Your task to perform on an android device: search for 2021 honda civic Image 0: 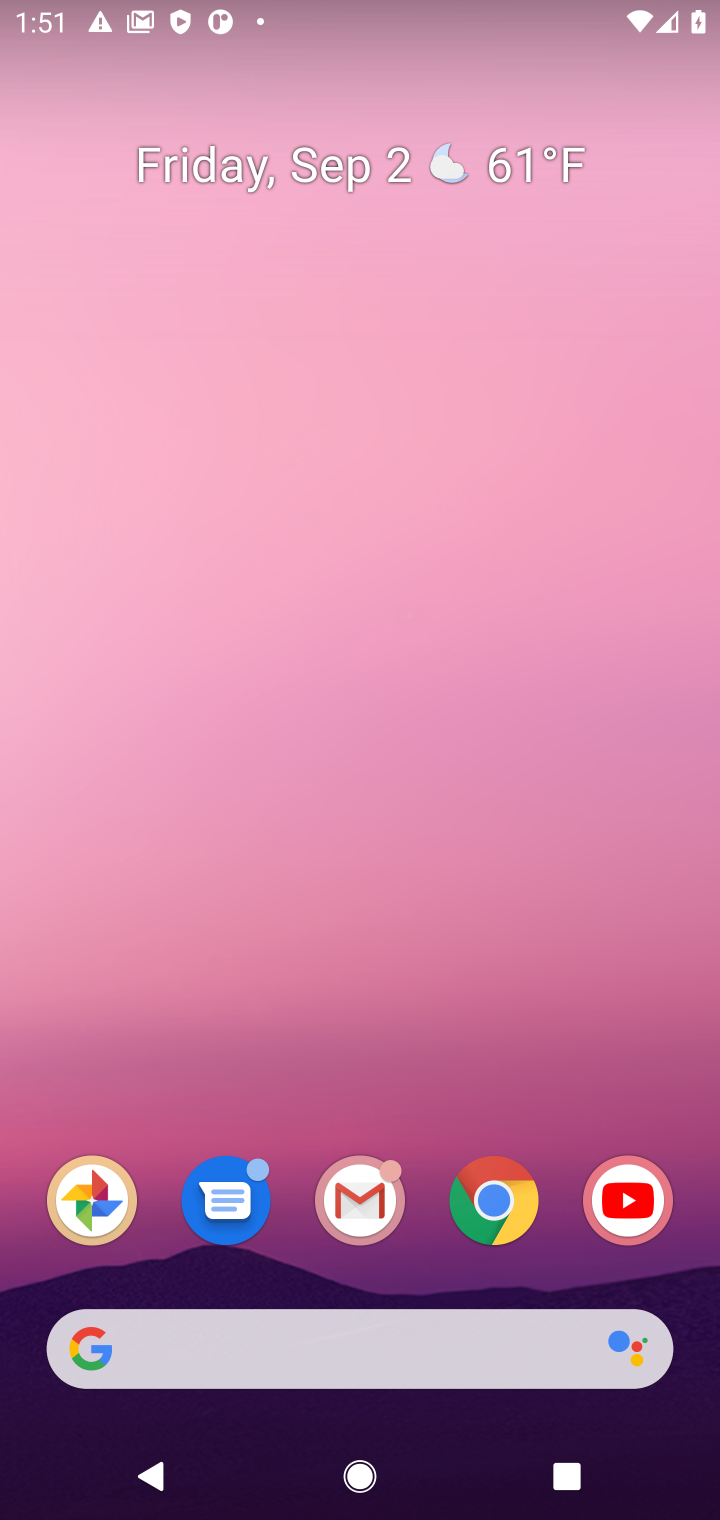
Step 0: click (490, 1203)
Your task to perform on an android device: search for 2021 honda civic Image 1: 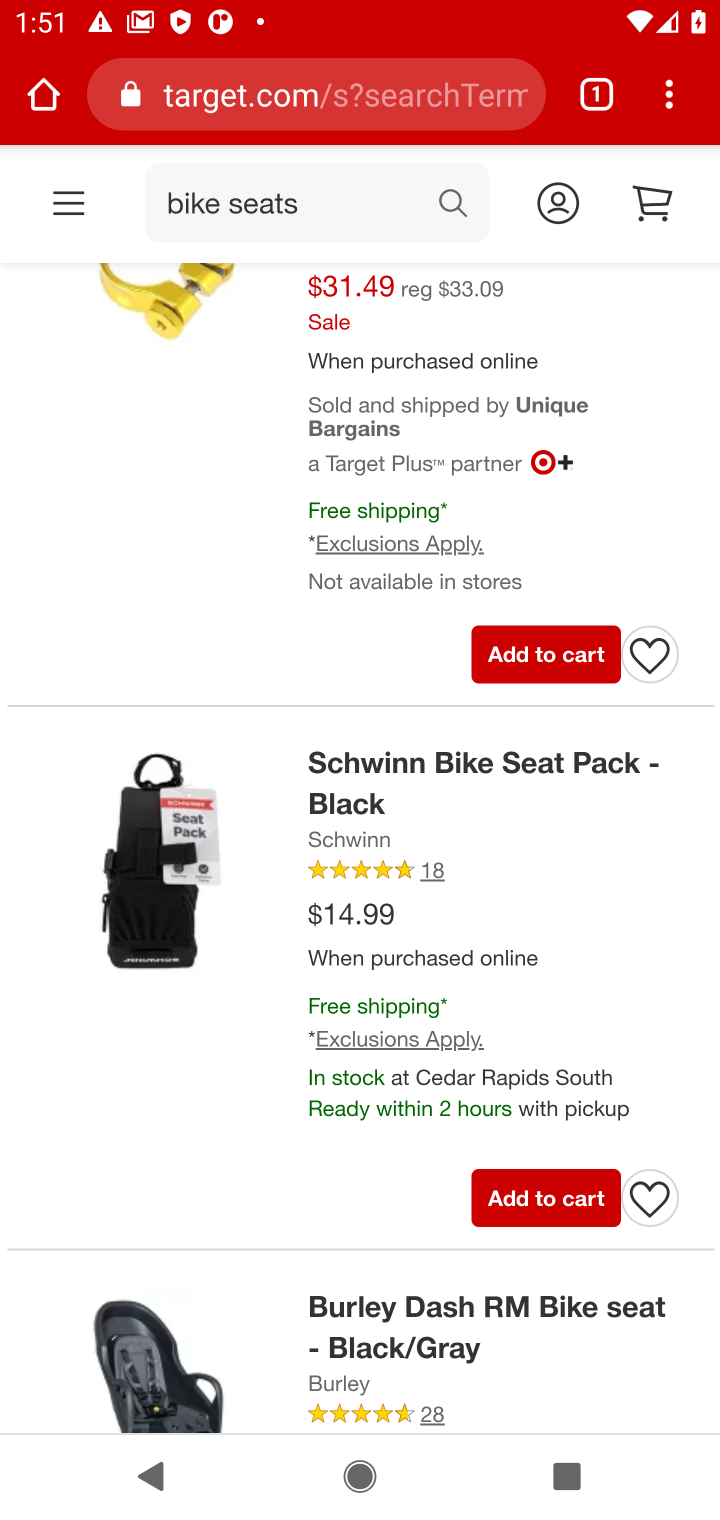
Step 1: click (345, 106)
Your task to perform on an android device: search for 2021 honda civic Image 2: 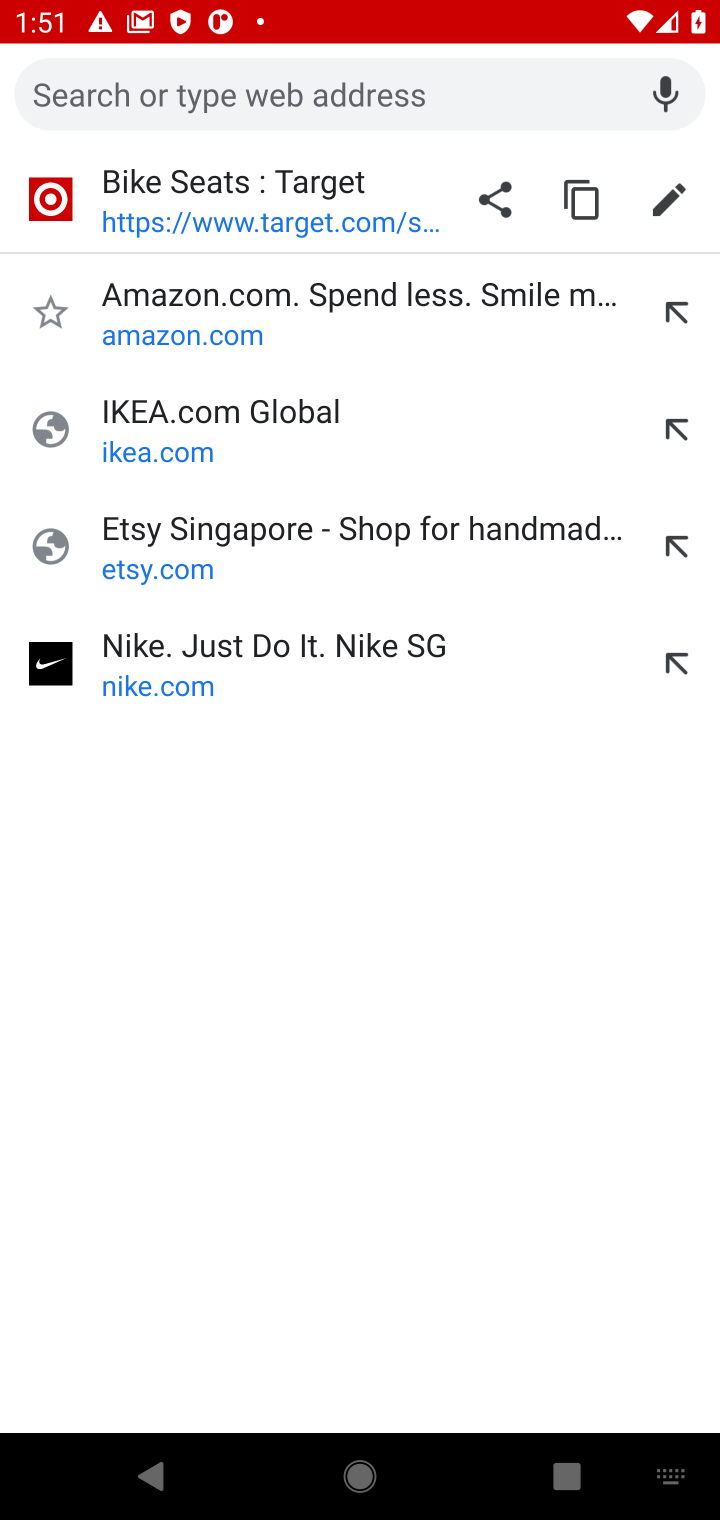
Step 2: type "2021 honda civic"
Your task to perform on an android device: search for 2021 honda civic Image 3: 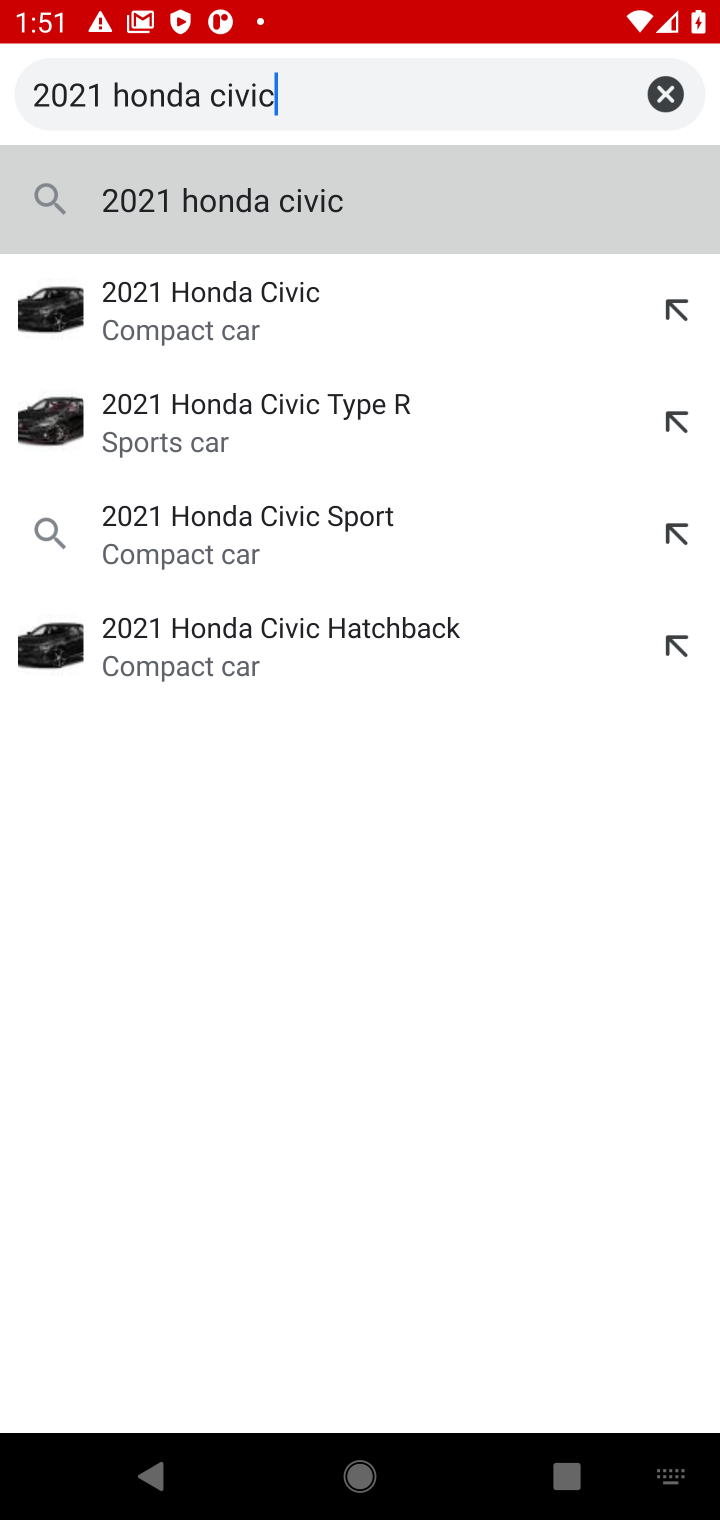
Step 3: press enter
Your task to perform on an android device: search for 2021 honda civic Image 4: 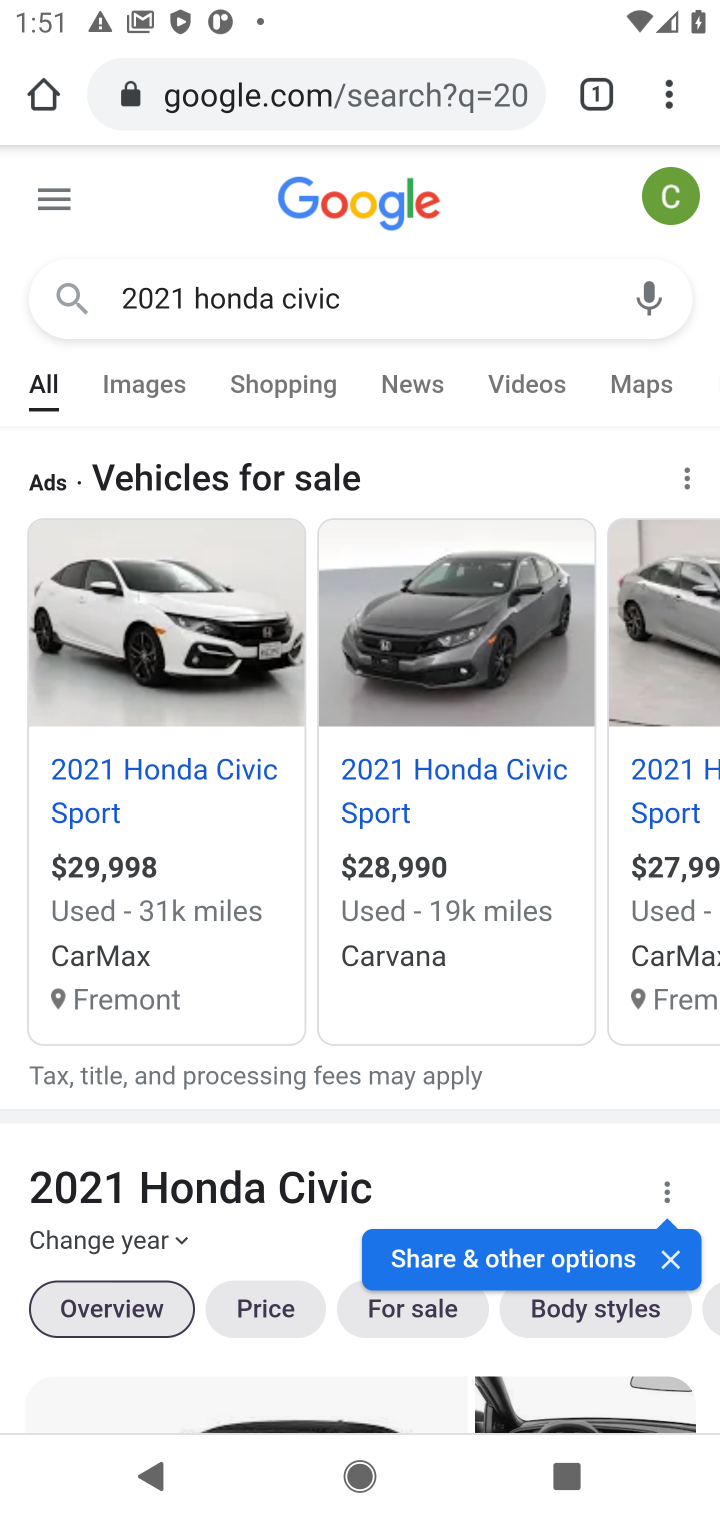
Step 4: task complete